Your task to perform on an android device: toggle airplane mode Image 0: 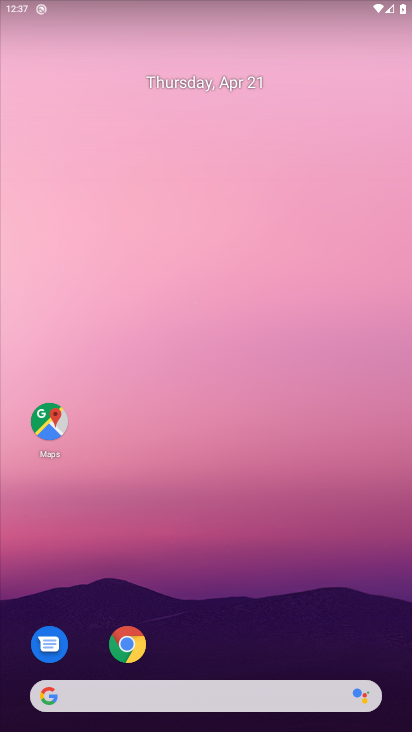
Step 0: click (310, 87)
Your task to perform on an android device: toggle airplane mode Image 1: 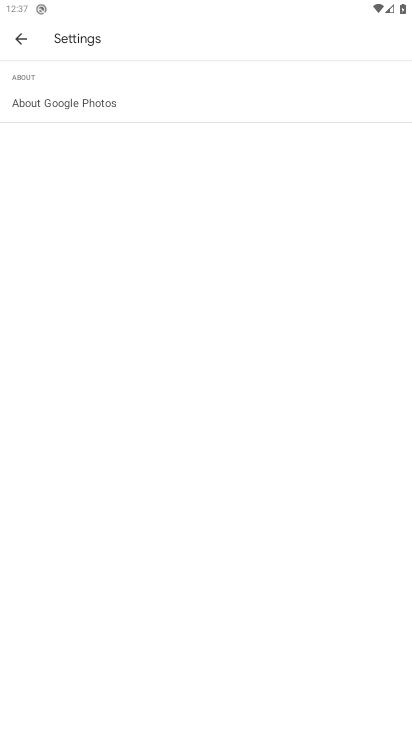
Step 1: press back button
Your task to perform on an android device: toggle airplane mode Image 2: 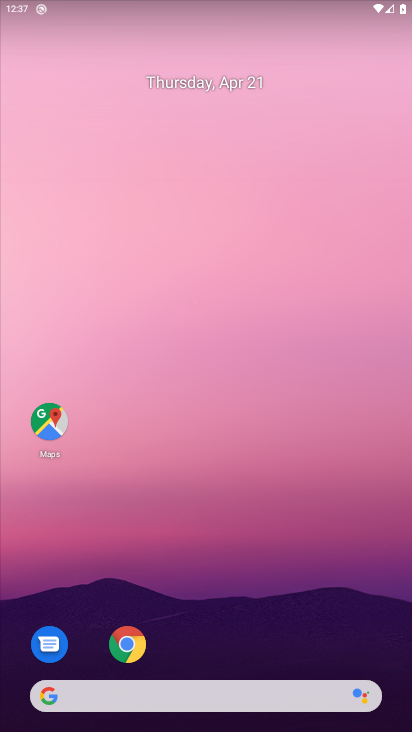
Step 2: drag from (347, 48) to (252, 620)
Your task to perform on an android device: toggle airplane mode Image 3: 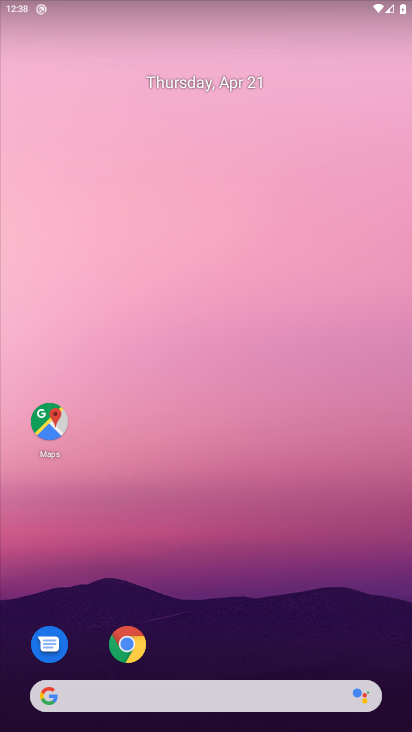
Step 3: drag from (353, 43) to (310, 610)
Your task to perform on an android device: toggle airplane mode Image 4: 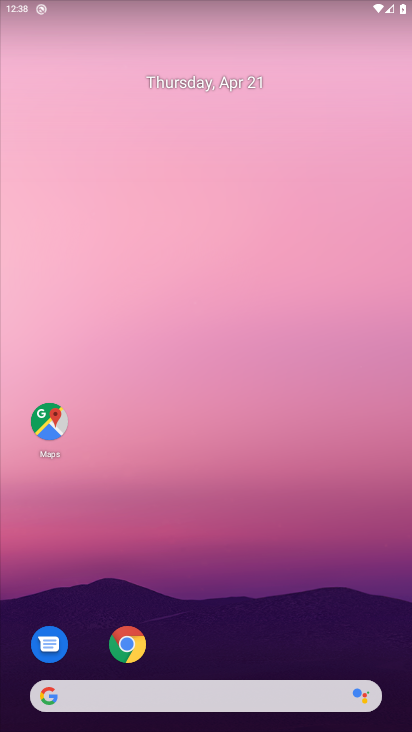
Step 4: drag from (370, 24) to (311, 499)
Your task to perform on an android device: toggle airplane mode Image 5: 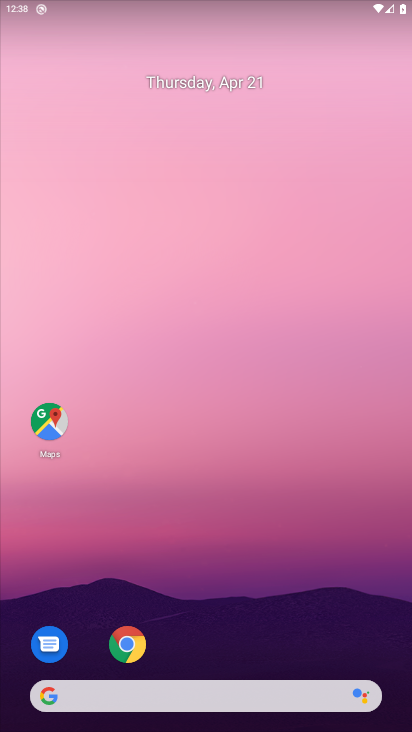
Step 5: drag from (77, 17) to (165, 587)
Your task to perform on an android device: toggle airplane mode Image 6: 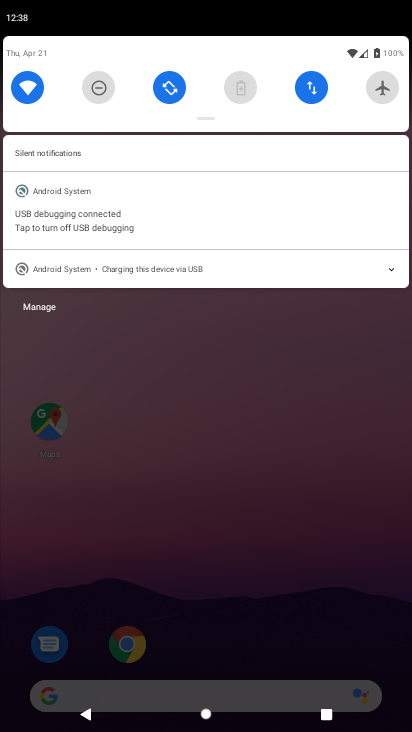
Step 6: click (383, 92)
Your task to perform on an android device: toggle airplane mode Image 7: 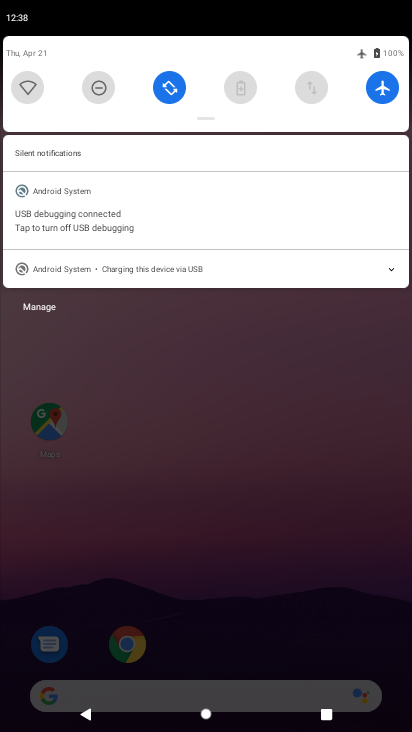
Step 7: task complete